Your task to perform on an android device: Open the map Image 0: 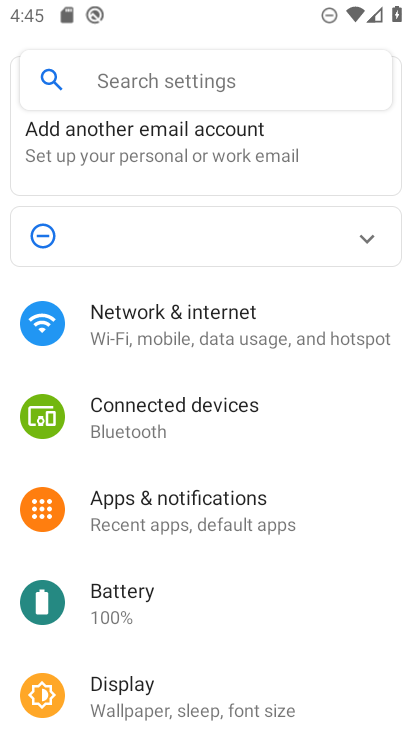
Step 0: press home button
Your task to perform on an android device: Open the map Image 1: 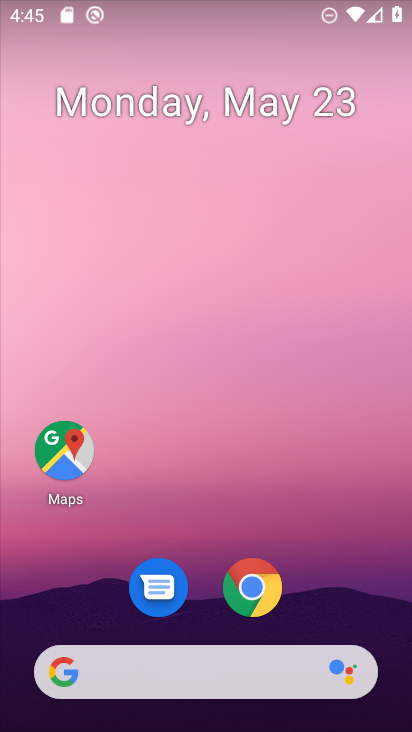
Step 1: click (53, 449)
Your task to perform on an android device: Open the map Image 2: 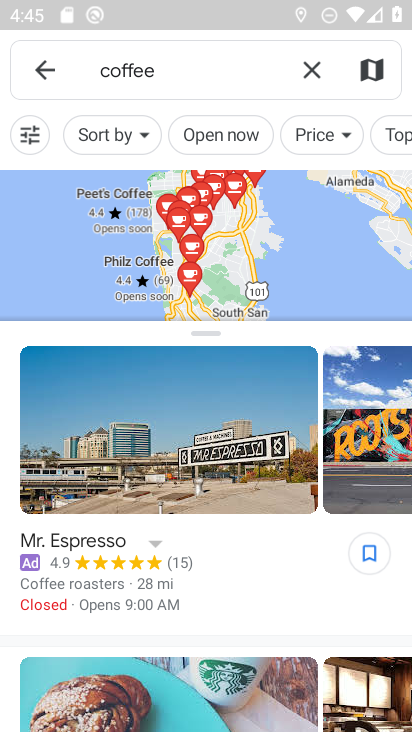
Step 2: click (52, 61)
Your task to perform on an android device: Open the map Image 3: 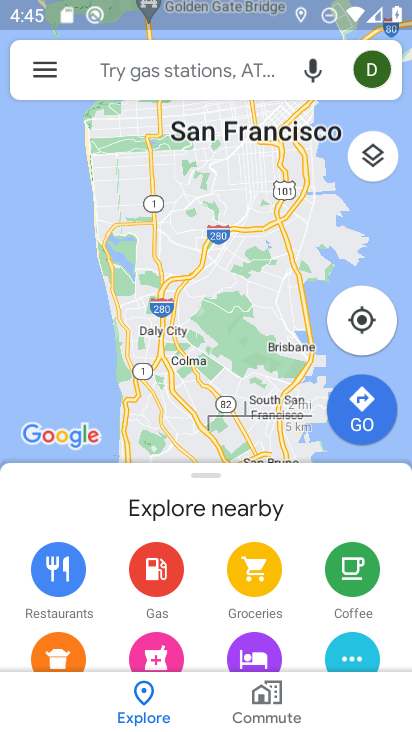
Step 3: task complete